Your task to perform on an android device: Open calendar and show me the second week of next month Image 0: 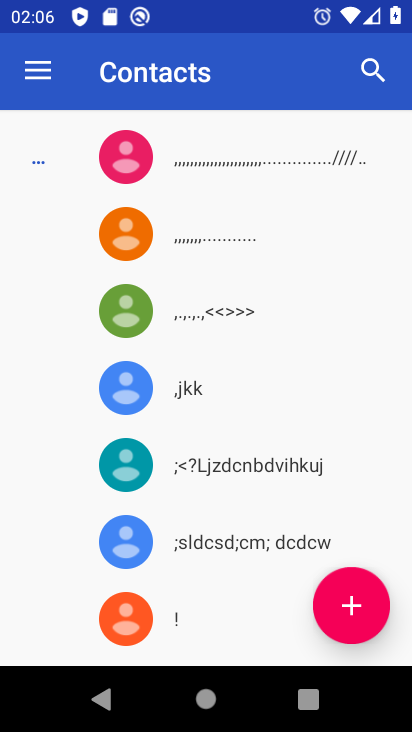
Step 0: press home button
Your task to perform on an android device: Open calendar and show me the second week of next month Image 1: 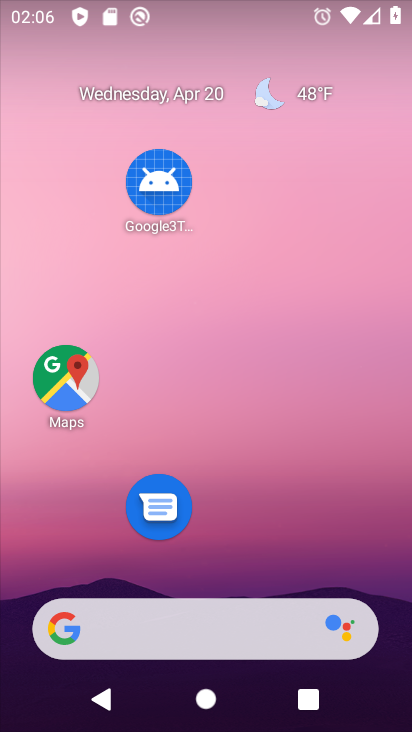
Step 1: drag from (239, 492) to (175, 68)
Your task to perform on an android device: Open calendar and show me the second week of next month Image 2: 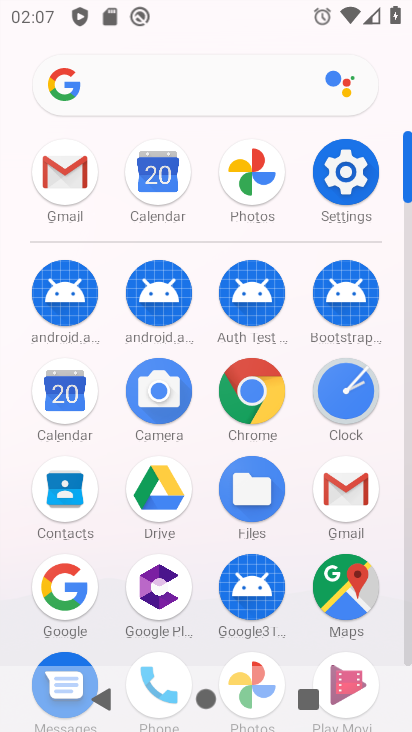
Step 2: click (66, 392)
Your task to perform on an android device: Open calendar and show me the second week of next month Image 3: 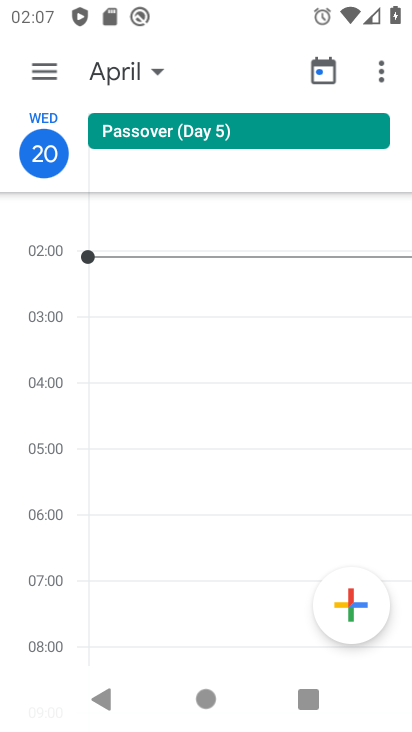
Step 3: click (40, 67)
Your task to perform on an android device: Open calendar and show me the second week of next month Image 4: 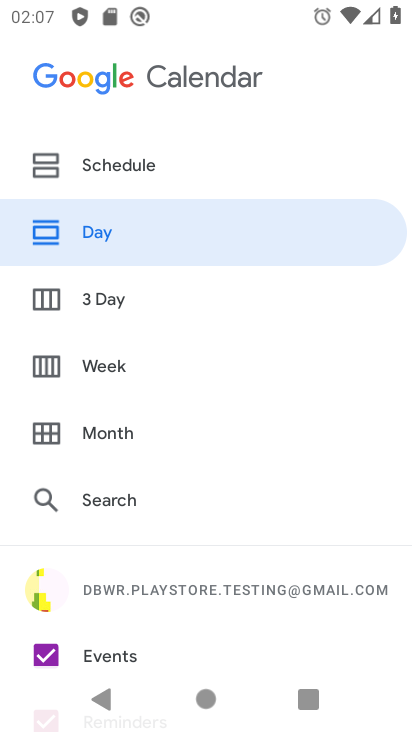
Step 4: click (96, 366)
Your task to perform on an android device: Open calendar and show me the second week of next month Image 5: 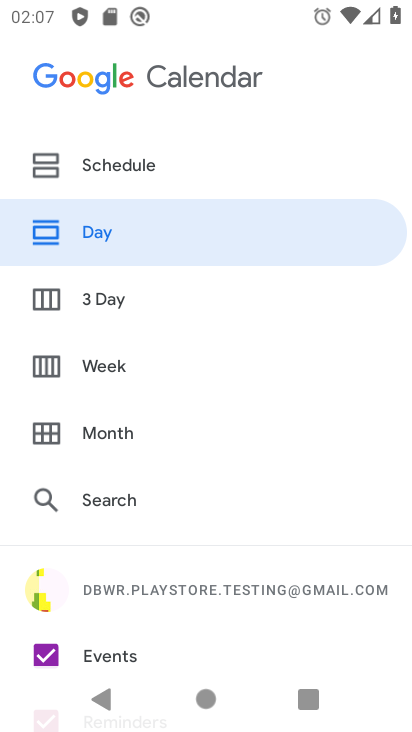
Step 5: click (103, 363)
Your task to perform on an android device: Open calendar and show me the second week of next month Image 6: 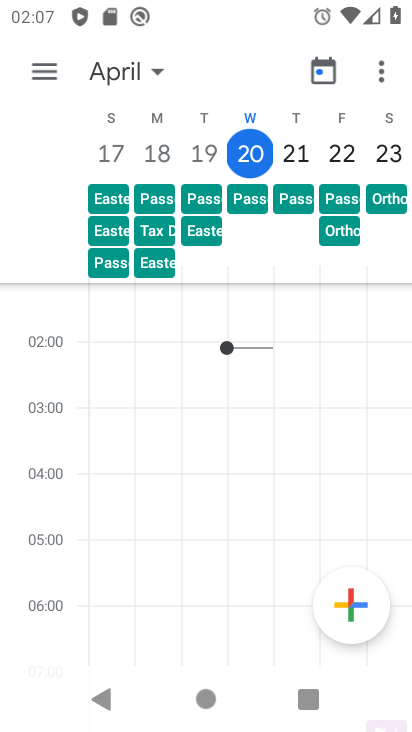
Step 6: click (154, 71)
Your task to perform on an android device: Open calendar and show me the second week of next month Image 7: 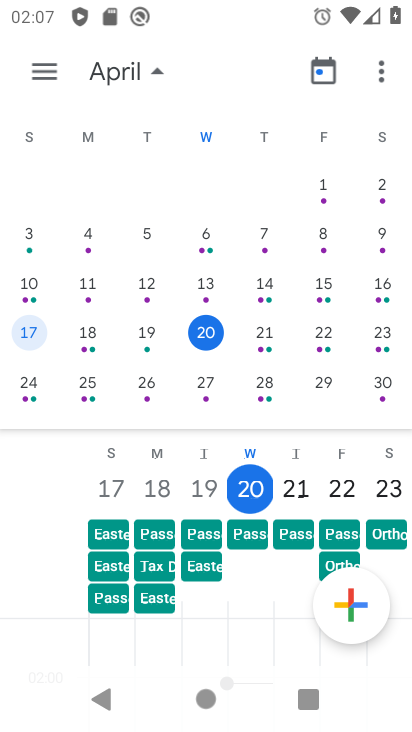
Step 7: click (74, 314)
Your task to perform on an android device: Open calendar and show me the second week of next month Image 8: 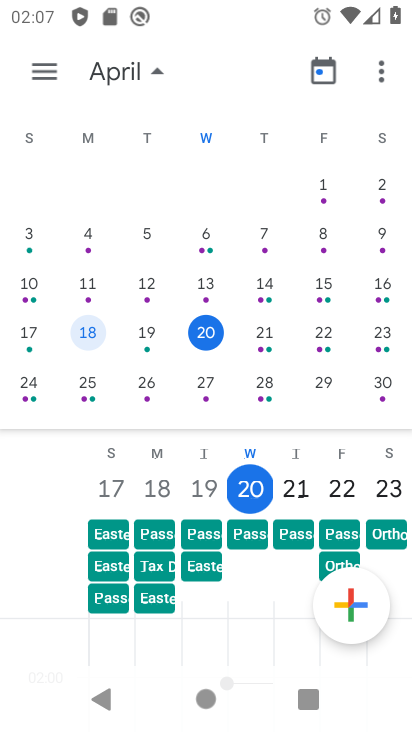
Step 8: drag from (375, 289) to (16, 280)
Your task to perform on an android device: Open calendar and show me the second week of next month Image 9: 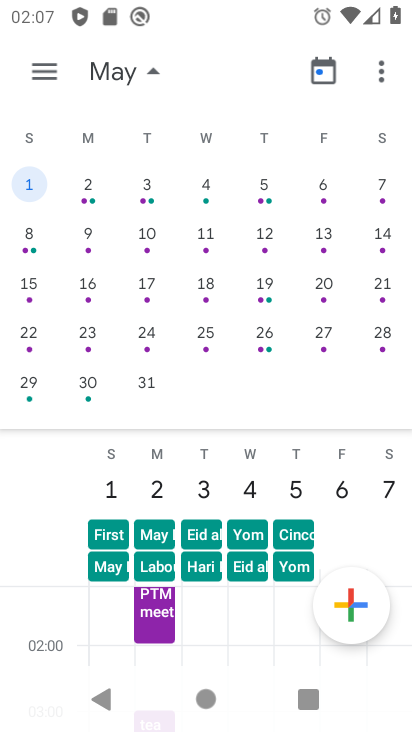
Step 9: click (87, 233)
Your task to perform on an android device: Open calendar and show me the second week of next month Image 10: 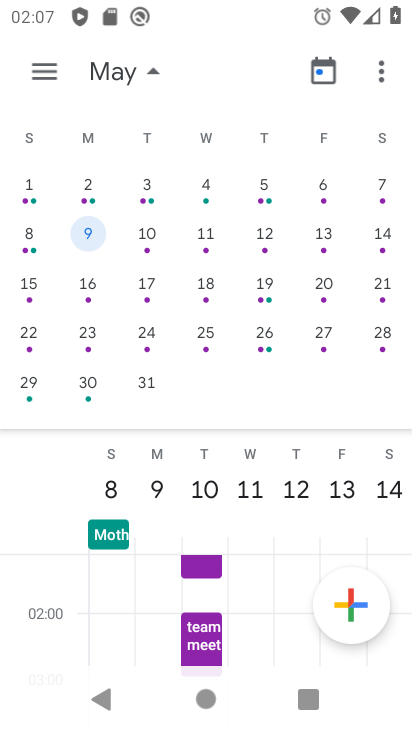
Step 10: task complete